Your task to perform on an android device: Open sound settings Image 0: 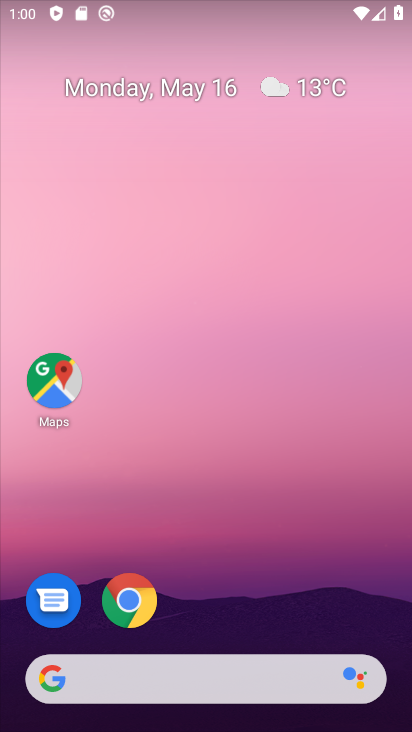
Step 0: drag from (228, 483) to (58, 34)
Your task to perform on an android device: Open sound settings Image 1: 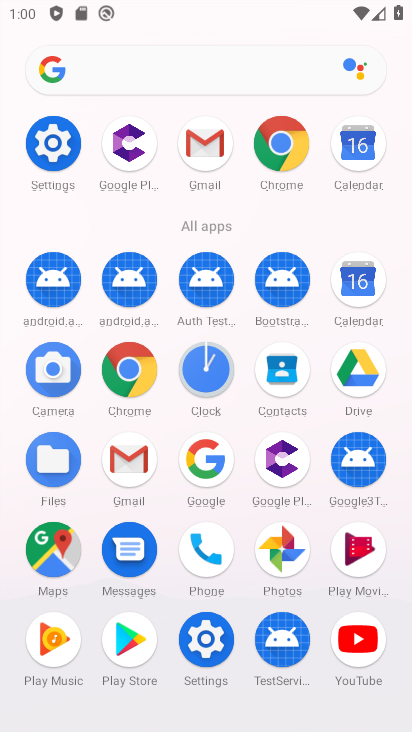
Step 1: click (207, 644)
Your task to perform on an android device: Open sound settings Image 2: 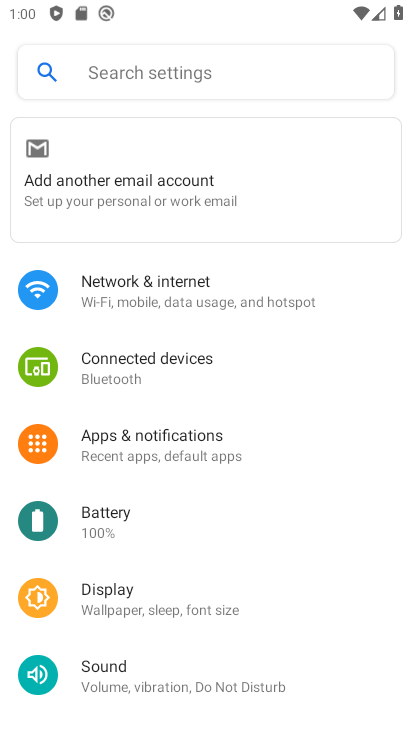
Step 2: click (119, 675)
Your task to perform on an android device: Open sound settings Image 3: 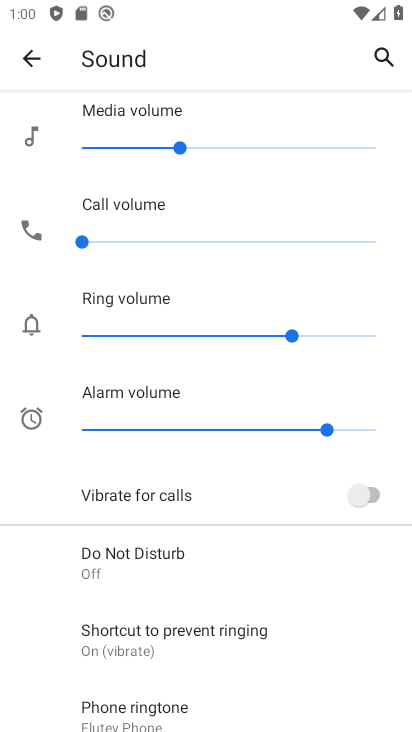
Step 3: drag from (119, 675) to (111, 262)
Your task to perform on an android device: Open sound settings Image 4: 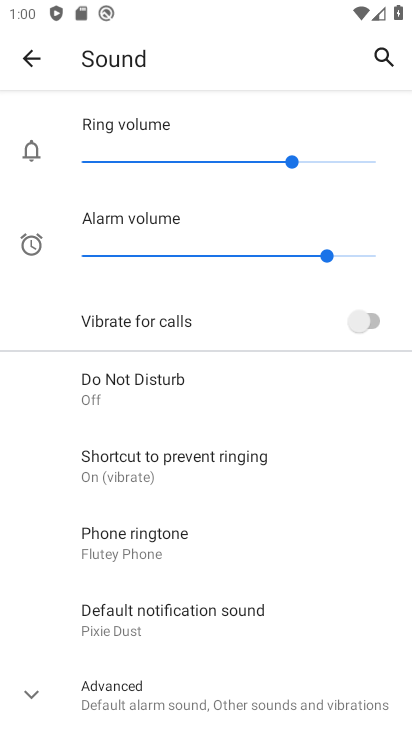
Step 4: click (117, 703)
Your task to perform on an android device: Open sound settings Image 5: 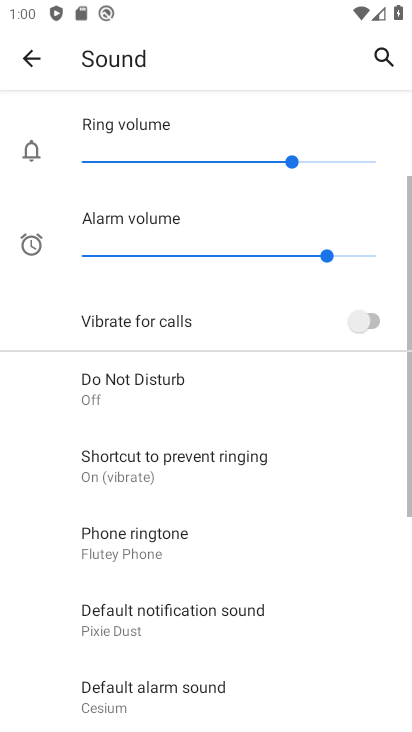
Step 5: task complete